Your task to perform on an android device: turn off notifications in google photos Image 0: 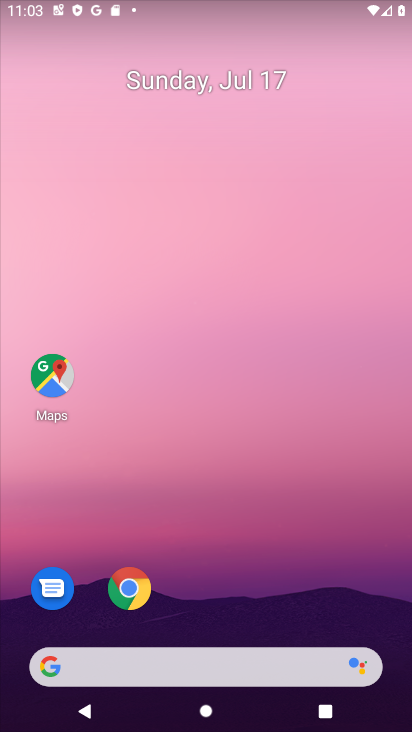
Step 0: press home button
Your task to perform on an android device: turn off notifications in google photos Image 1: 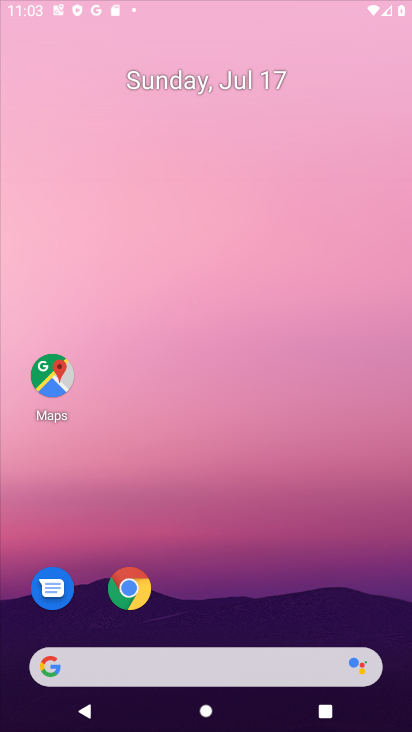
Step 1: drag from (217, 625) to (257, 28)
Your task to perform on an android device: turn off notifications in google photos Image 2: 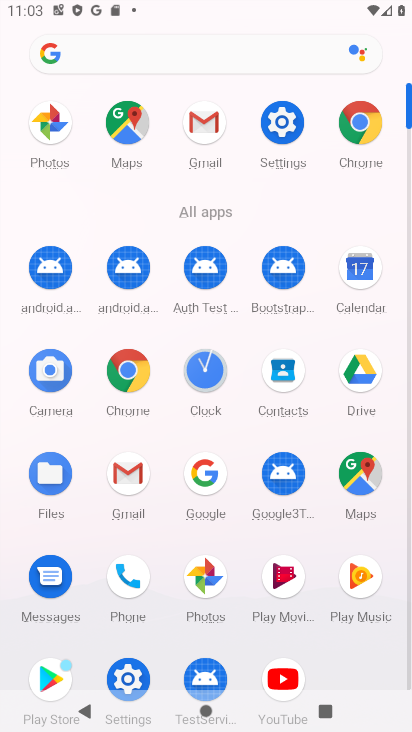
Step 2: click (204, 571)
Your task to perform on an android device: turn off notifications in google photos Image 3: 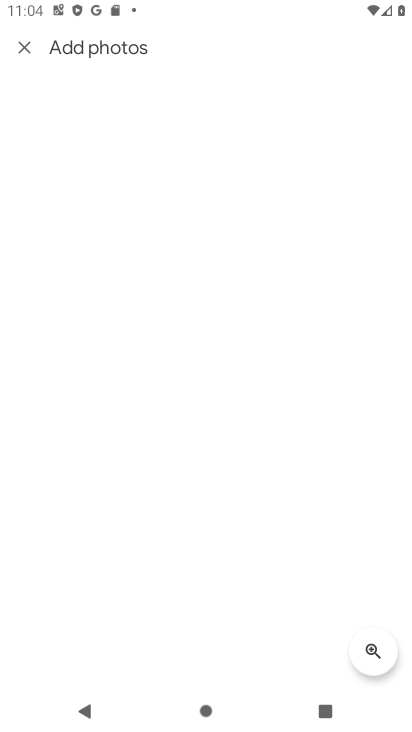
Step 3: click (21, 46)
Your task to perform on an android device: turn off notifications in google photos Image 4: 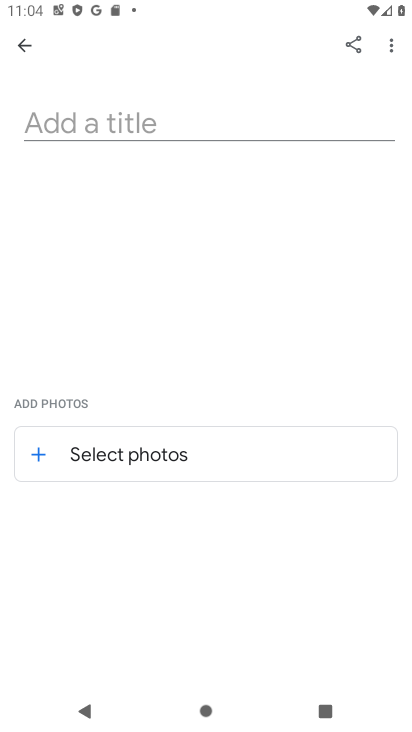
Step 4: click (20, 40)
Your task to perform on an android device: turn off notifications in google photos Image 5: 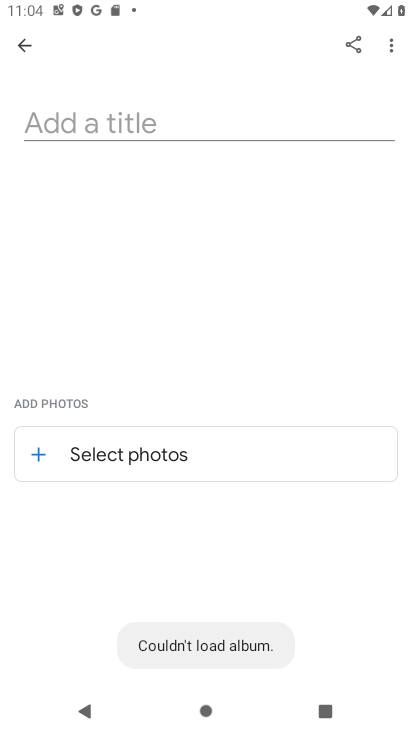
Step 5: click (28, 44)
Your task to perform on an android device: turn off notifications in google photos Image 6: 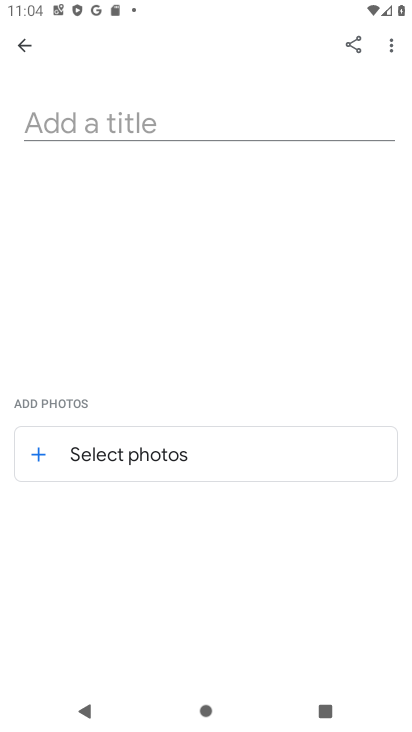
Step 6: click (21, 43)
Your task to perform on an android device: turn off notifications in google photos Image 7: 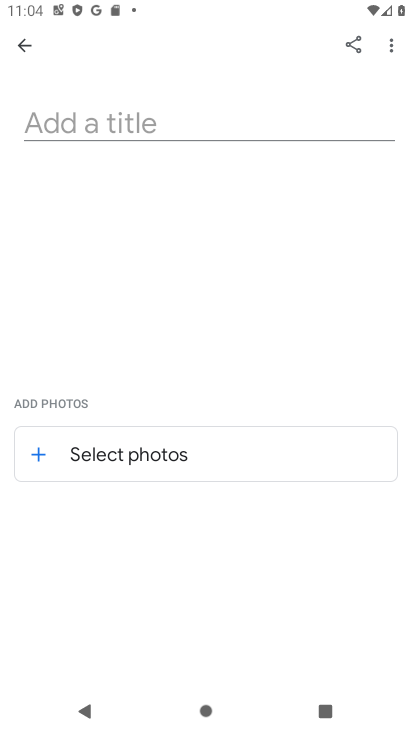
Step 7: click (31, 37)
Your task to perform on an android device: turn off notifications in google photos Image 8: 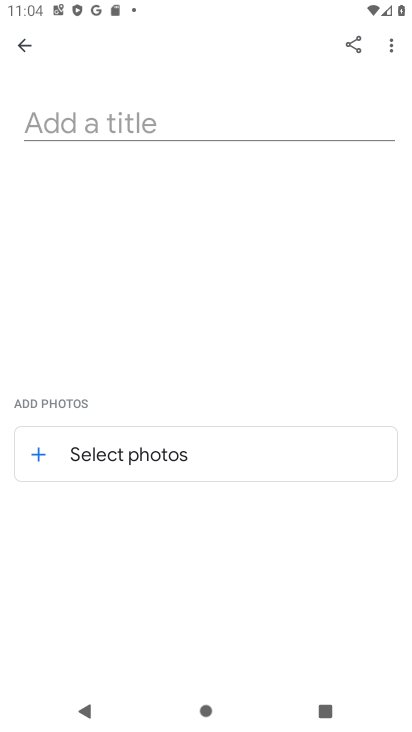
Step 8: task complete